Your task to perform on an android device: toggle javascript in the chrome app Image 0: 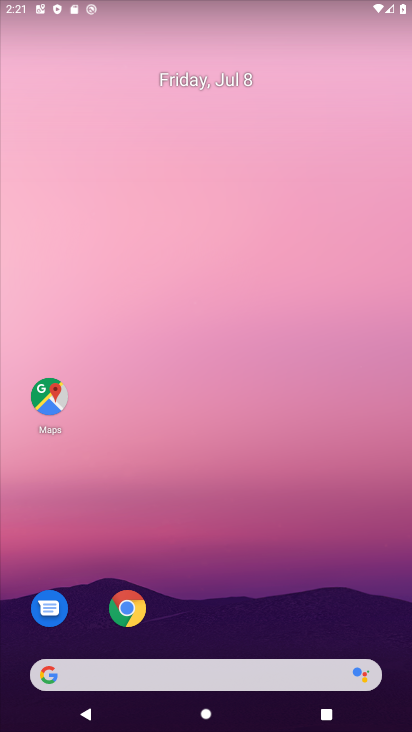
Step 0: drag from (272, 471) to (293, 42)
Your task to perform on an android device: toggle javascript in the chrome app Image 1: 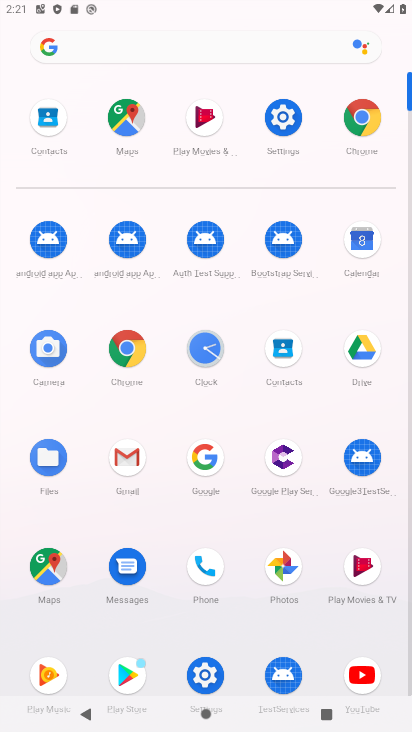
Step 1: click (129, 347)
Your task to perform on an android device: toggle javascript in the chrome app Image 2: 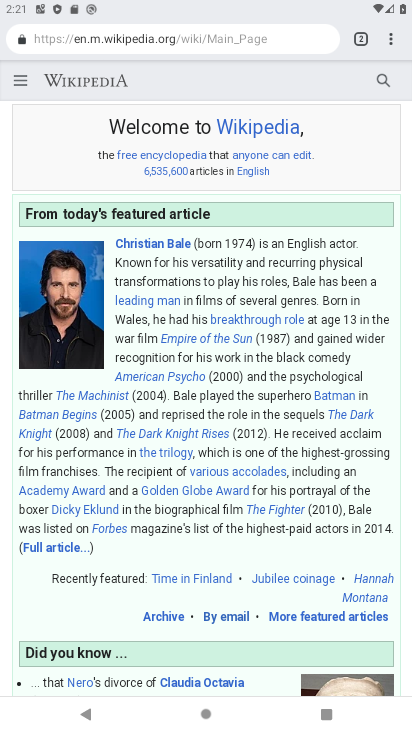
Step 2: drag from (388, 41) to (265, 474)
Your task to perform on an android device: toggle javascript in the chrome app Image 3: 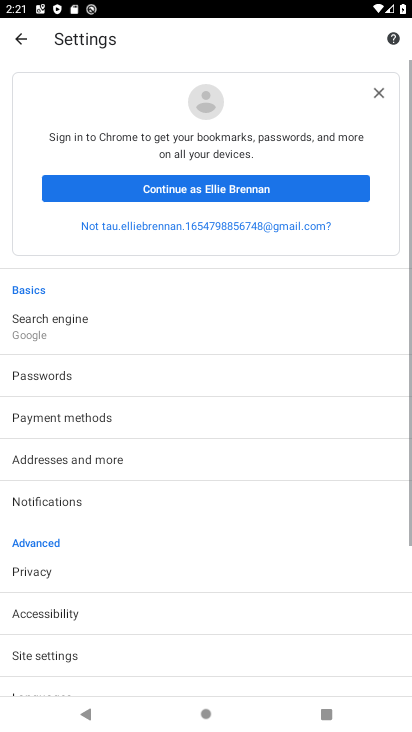
Step 3: drag from (216, 650) to (237, 318)
Your task to perform on an android device: toggle javascript in the chrome app Image 4: 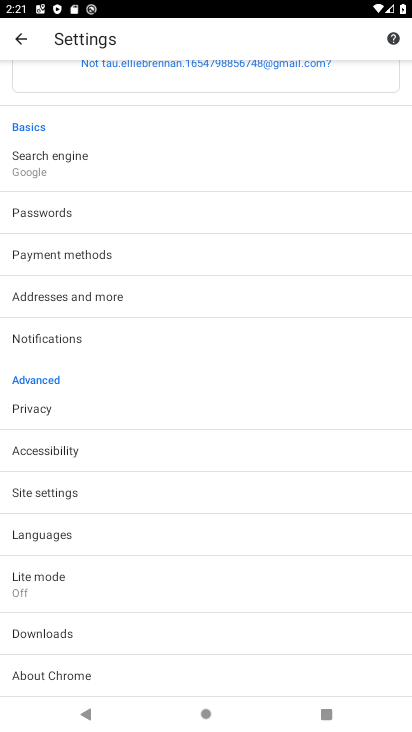
Step 4: click (96, 505)
Your task to perform on an android device: toggle javascript in the chrome app Image 5: 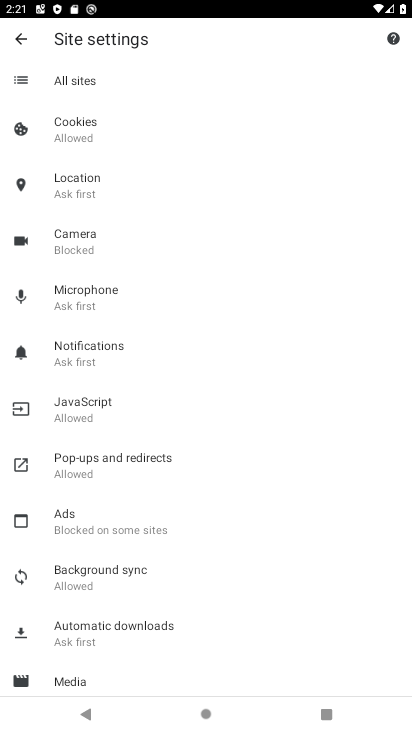
Step 5: click (100, 405)
Your task to perform on an android device: toggle javascript in the chrome app Image 6: 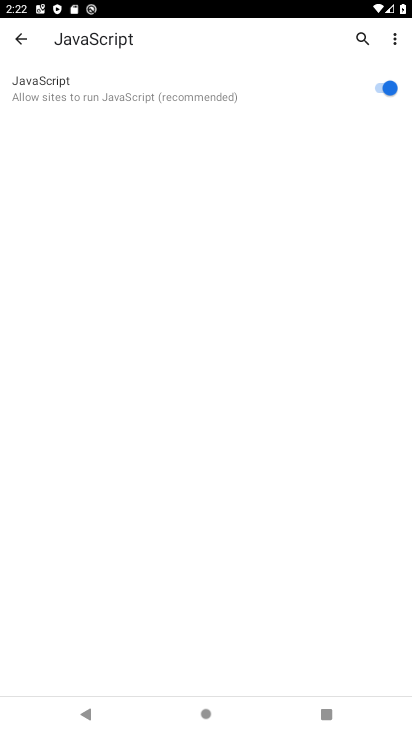
Step 6: click (382, 86)
Your task to perform on an android device: toggle javascript in the chrome app Image 7: 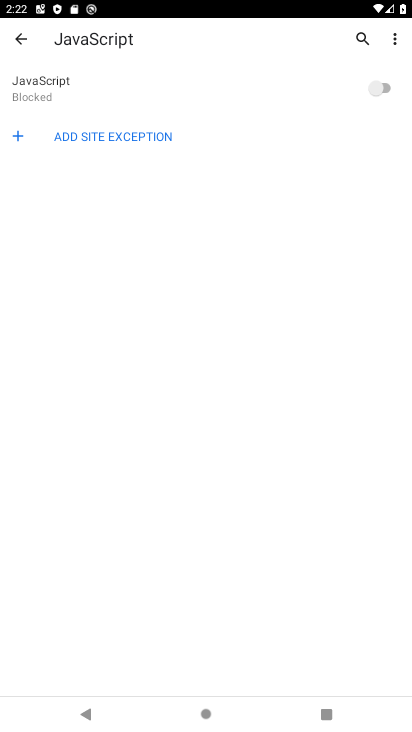
Step 7: task complete